Your task to perform on an android device: check storage Image 0: 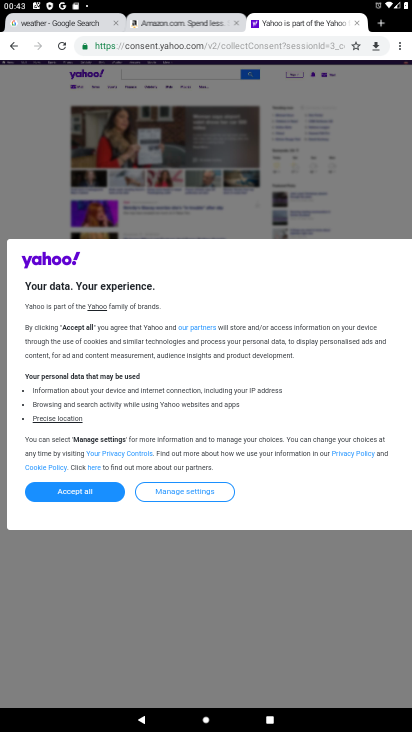
Step 0: press home button
Your task to perform on an android device: check storage Image 1: 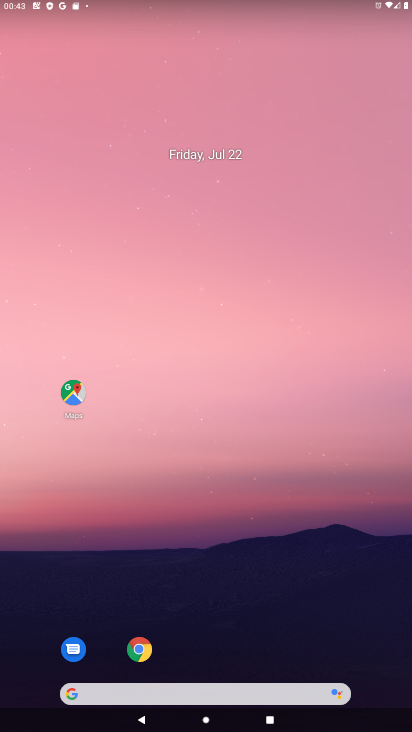
Step 1: drag from (247, 599) to (270, 117)
Your task to perform on an android device: check storage Image 2: 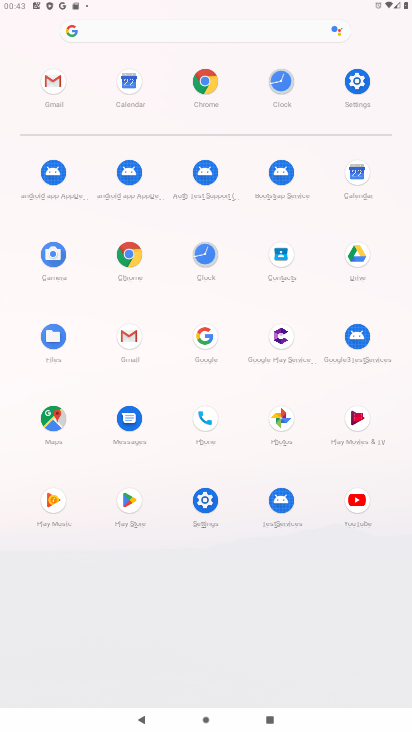
Step 2: click (349, 80)
Your task to perform on an android device: check storage Image 3: 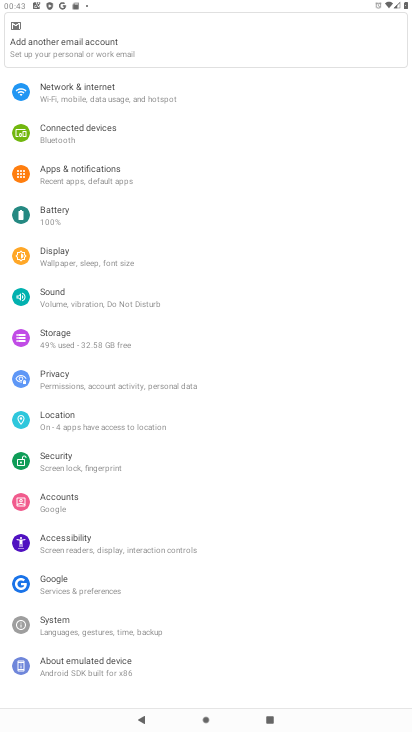
Step 3: click (68, 344)
Your task to perform on an android device: check storage Image 4: 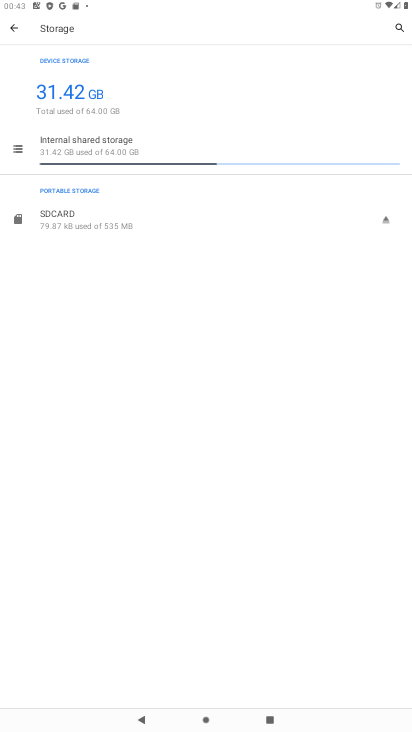
Step 4: task complete